Your task to perform on an android device: Show me recent news Image 0: 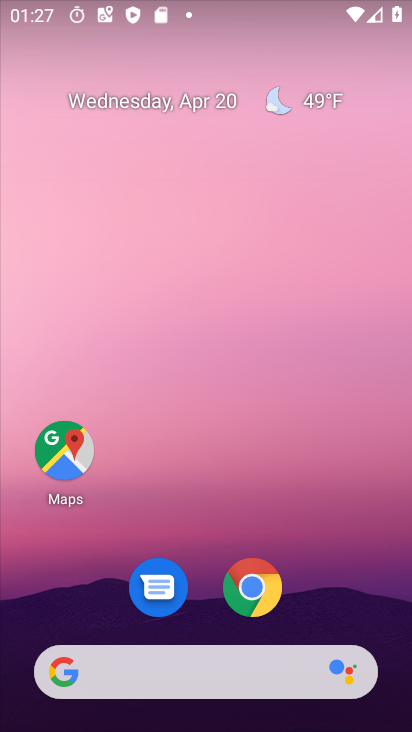
Step 0: click (380, 598)
Your task to perform on an android device: Show me recent news Image 1: 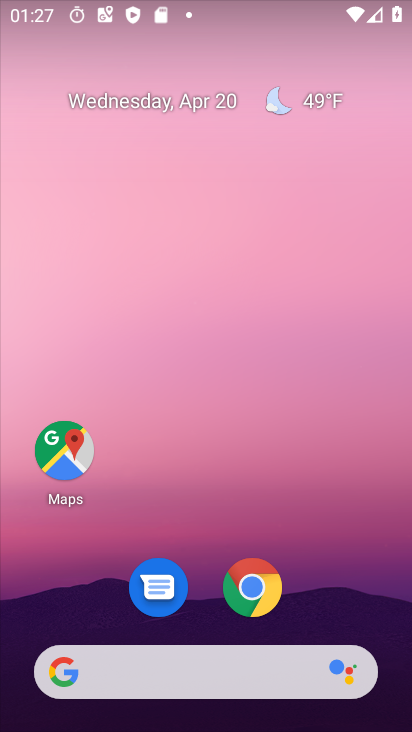
Step 1: task complete